Your task to perform on an android device: turn on priority inbox in the gmail app Image 0: 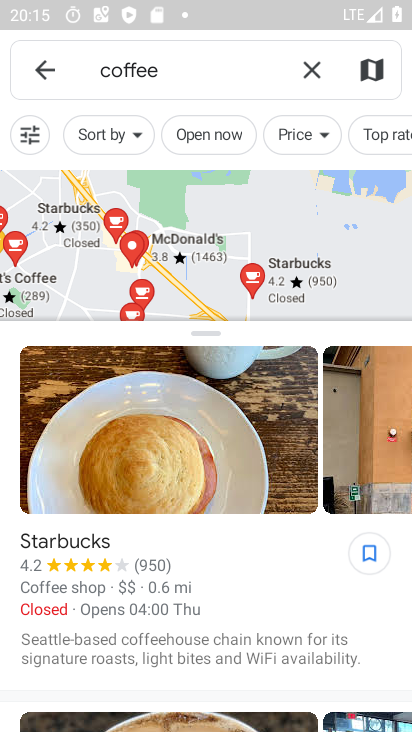
Step 0: press home button
Your task to perform on an android device: turn on priority inbox in the gmail app Image 1: 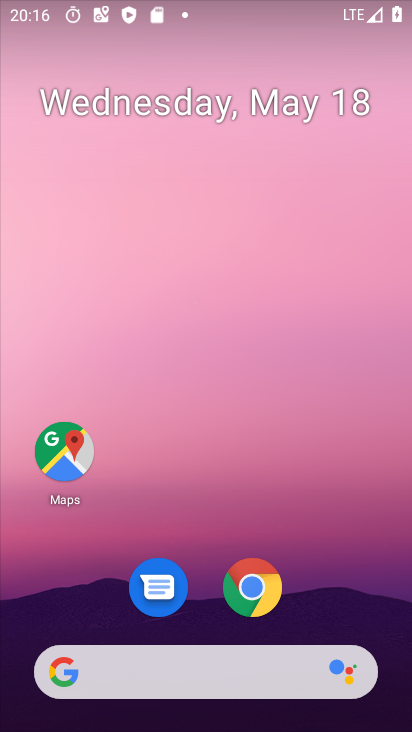
Step 1: drag from (209, 630) to (234, 103)
Your task to perform on an android device: turn on priority inbox in the gmail app Image 2: 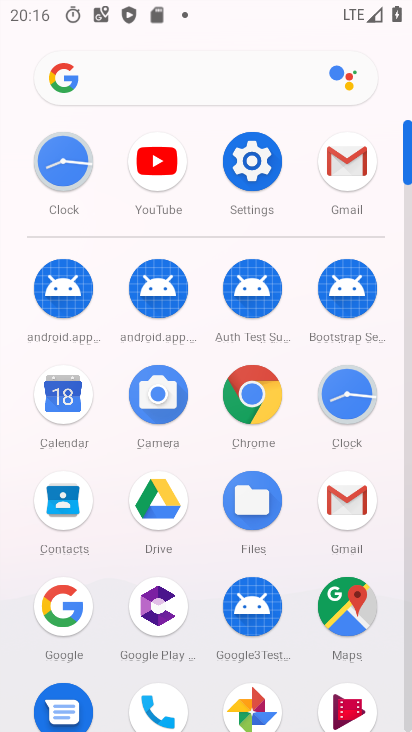
Step 2: click (323, 181)
Your task to perform on an android device: turn on priority inbox in the gmail app Image 3: 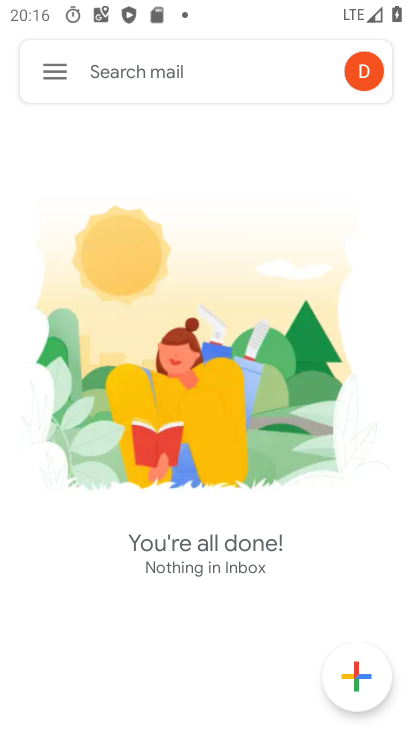
Step 3: click (70, 72)
Your task to perform on an android device: turn on priority inbox in the gmail app Image 4: 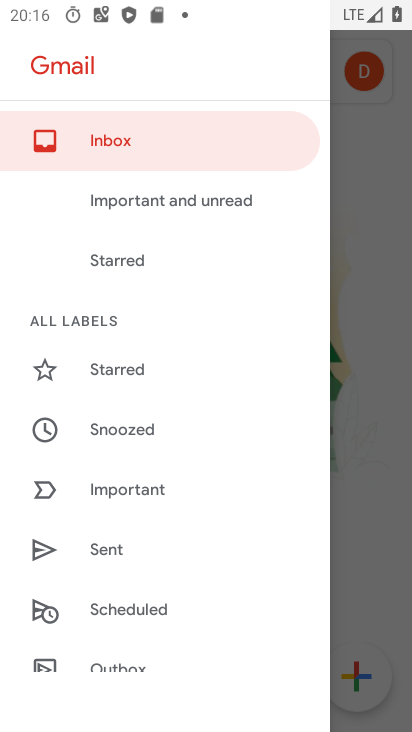
Step 4: drag from (123, 618) to (114, 166)
Your task to perform on an android device: turn on priority inbox in the gmail app Image 5: 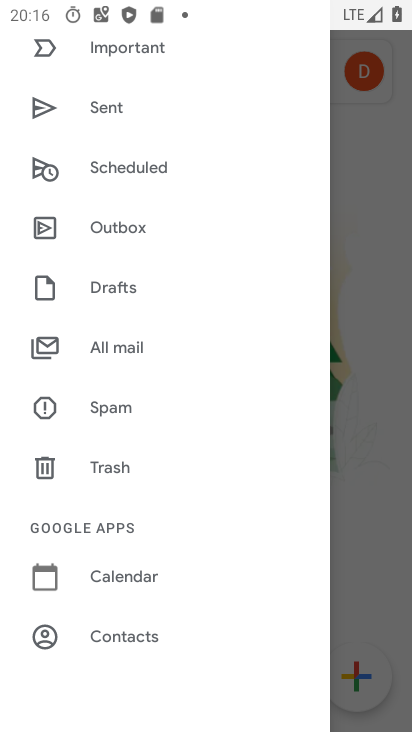
Step 5: drag from (171, 315) to (172, 729)
Your task to perform on an android device: turn on priority inbox in the gmail app Image 6: 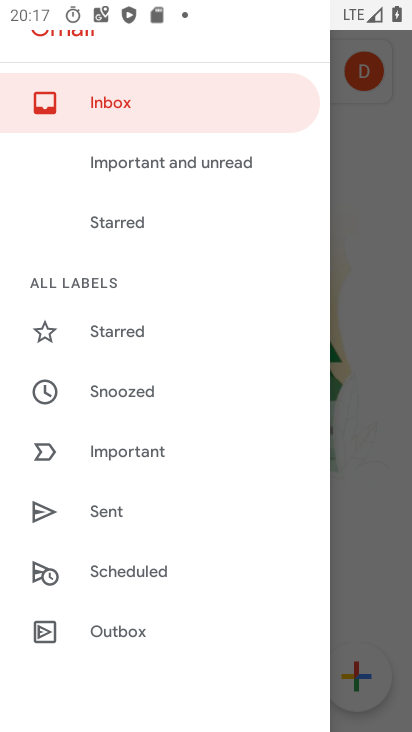
Step 6: drag from (157, 616) to (188, 101)
Your task to perform on an android device: turn on priority inbox in the gmail app Image 7: 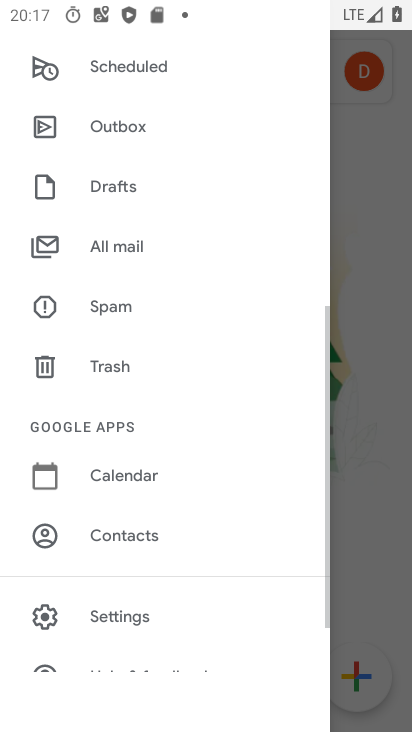
Step 7: click (118, 616)
Your task to perform on an android device: turn on priority inbox in the gmail app Image 8: 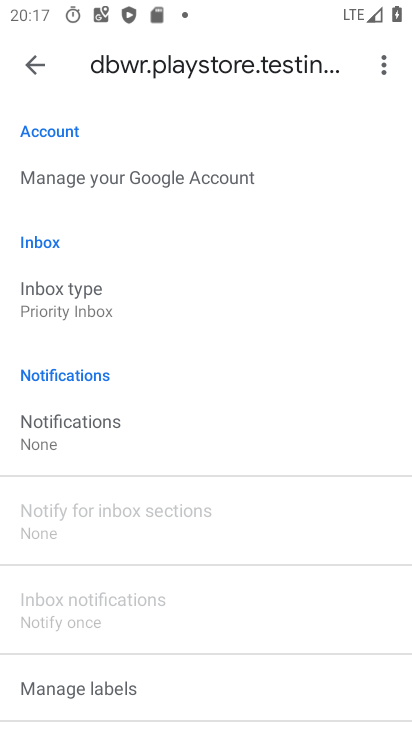
Step 8: click (104, 301)
Your task to perform on an android device: turn on priority inbox in the gmail app Image 9: 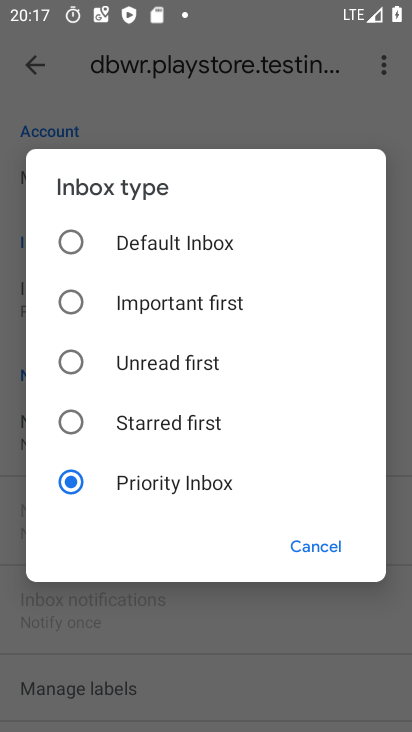
Step 9: task complete